Your task to perform on an android device: toggle airplane mode Image 0: 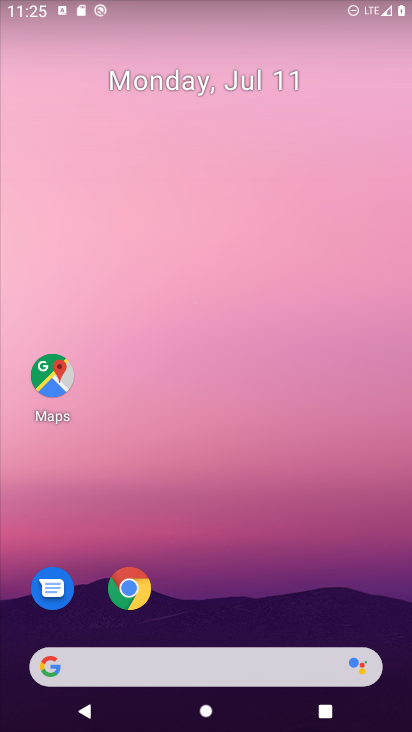
Step 0: drag from (403, 649) to (269, 59)
Your task to perform on an android device: toggle airplane mode Image 1: 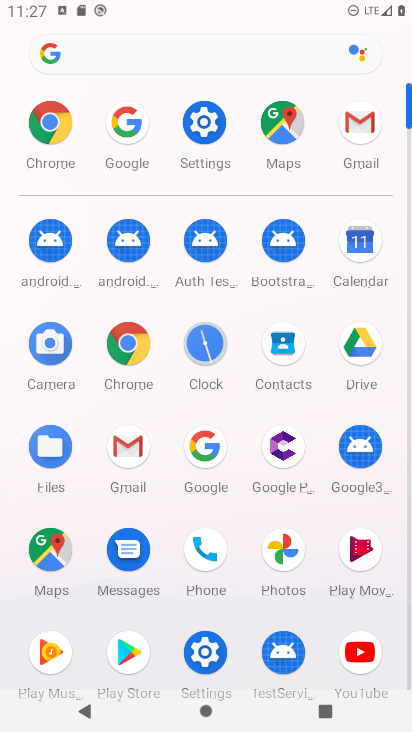
Step 1: drag from (271, 0) to (326, 634)
Your task to perform on an android device: toggle airplane mode Image 2: 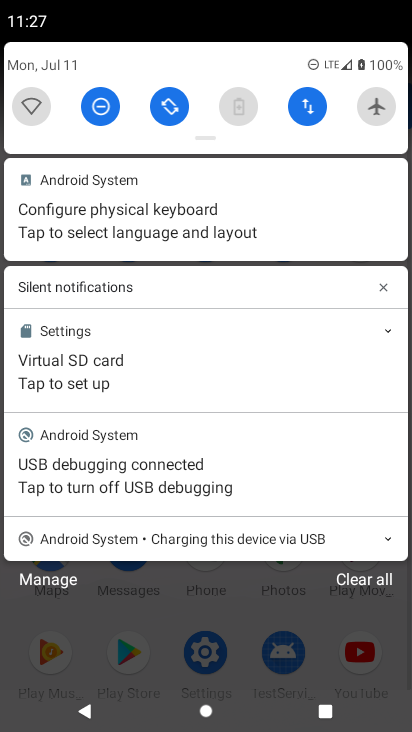
Step 2: click (375, 102)
Your task to perform on an android device: toggle airplane mode Image 3: 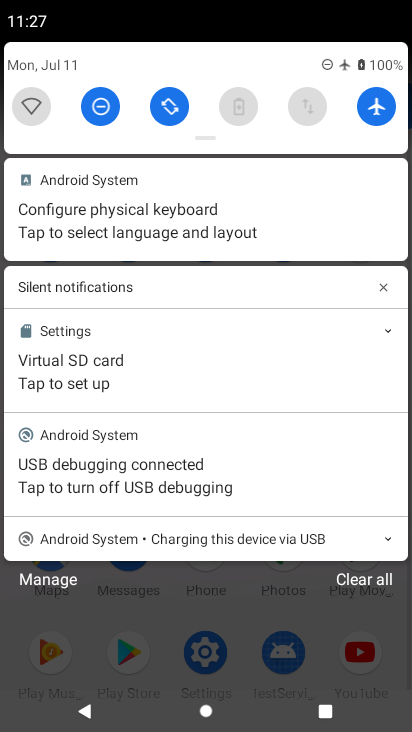
Step 3: task complete